Your task to perform on an android device: Go to CNN.com Image 0: 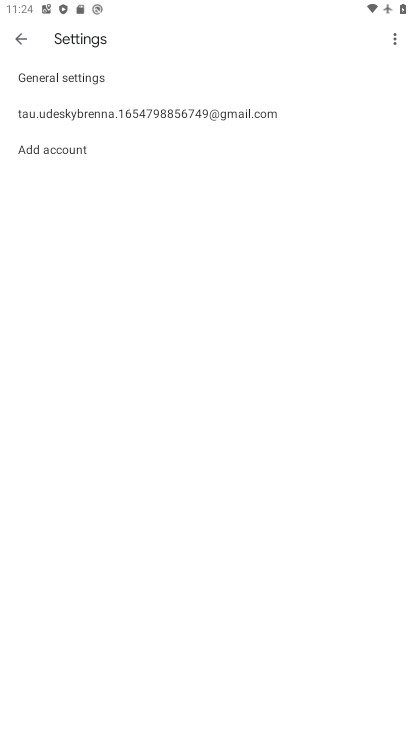
Step 0: press home button
Your task to perform on an android device: Go to CNN.com Image 1: 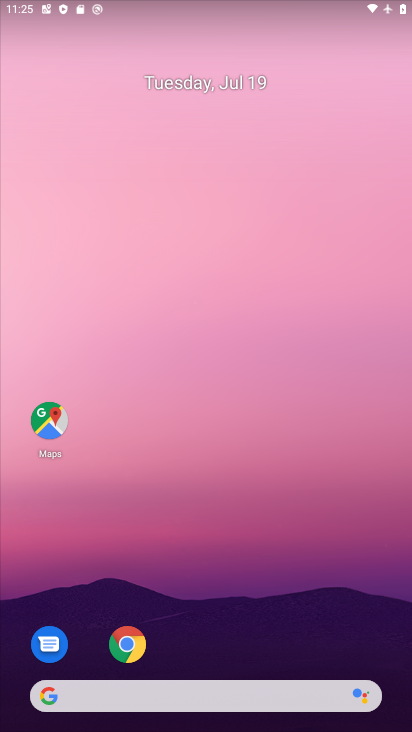
Step 1: drag from (57, 719) to (174, 295)
Your task to perform on an android device: Go to CNN.com Image 2: 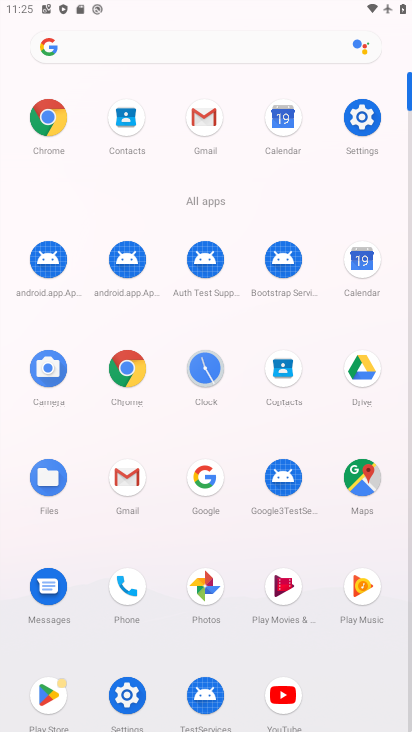
Step 2: click (89, 44)
Your task to perform on an android device: Go to CNN.com Image 3: 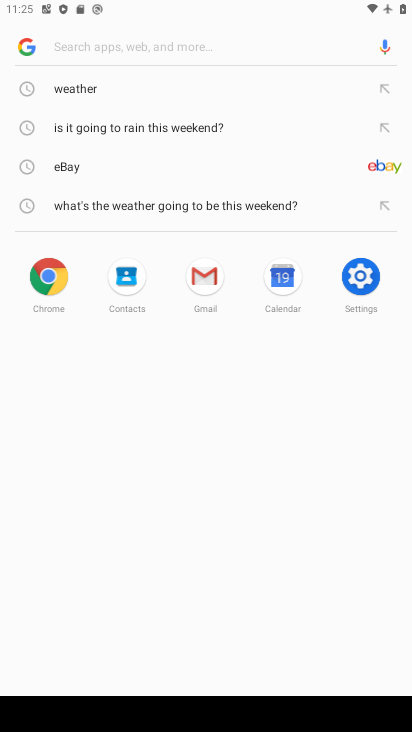
Step 3: type " CNN.com"
Your task to perform on an android device: Go to CNN.com Image 4: 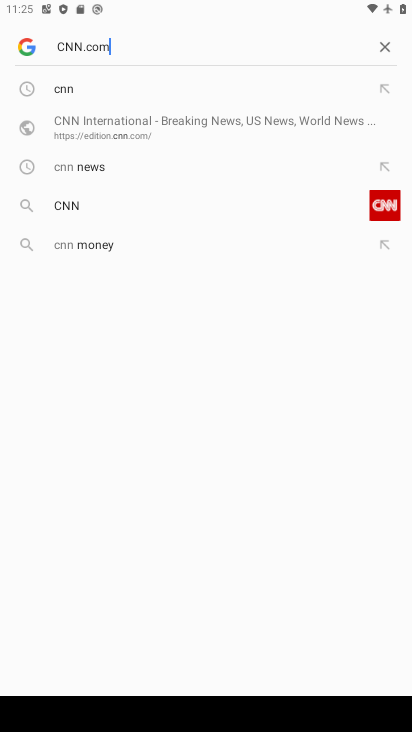
Step 4: type ""
Your task to perform on an android device: Go to CNN.com Image 5: 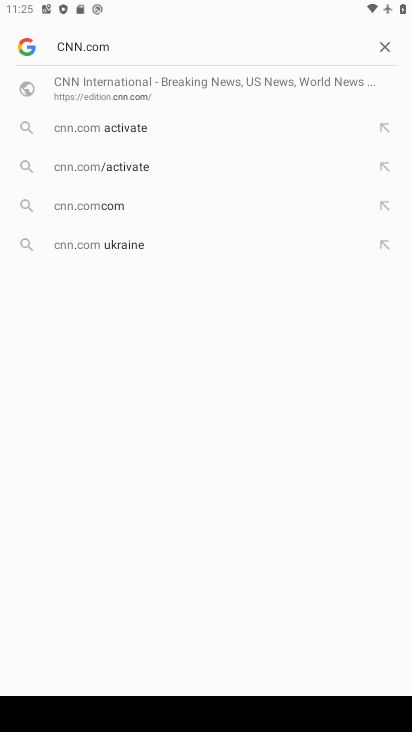
Step 5: type ""
Your task to perform on an android device: Go to CNN.com Image 6: 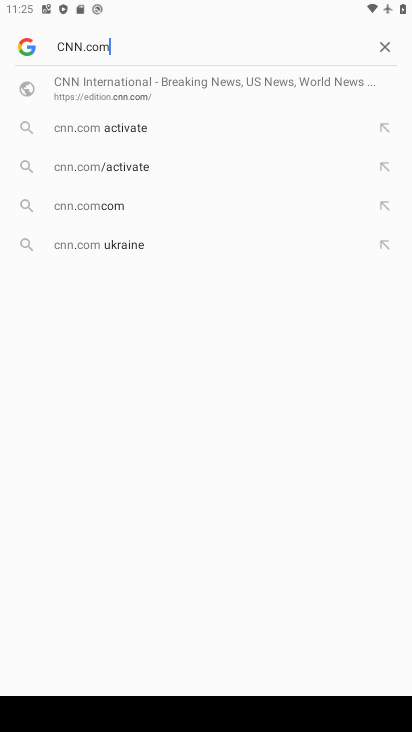
Step 6: task complete